Your task to perform on an android device: change timer sound Image 0: 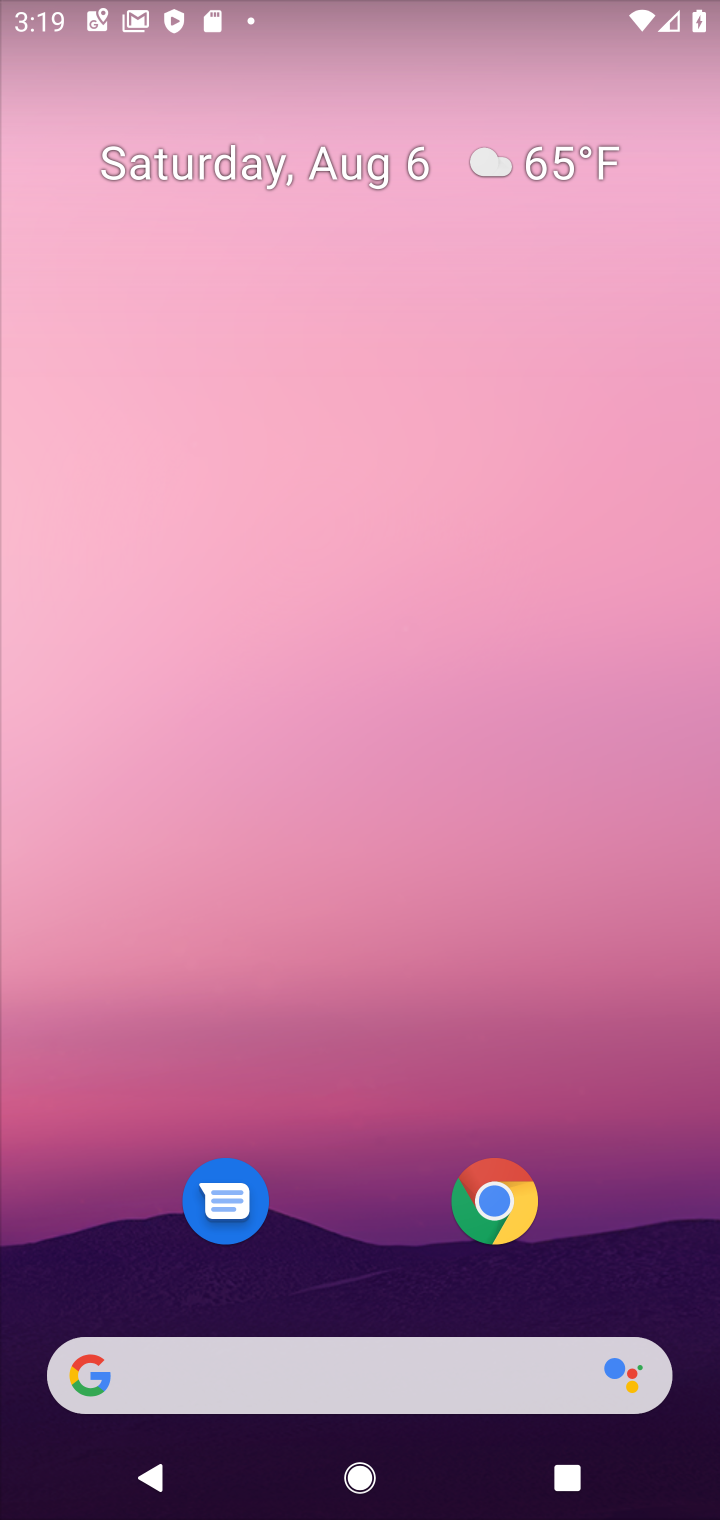
Step 0: press home button
Your task to perform on an android device: change timer sound Image 1: 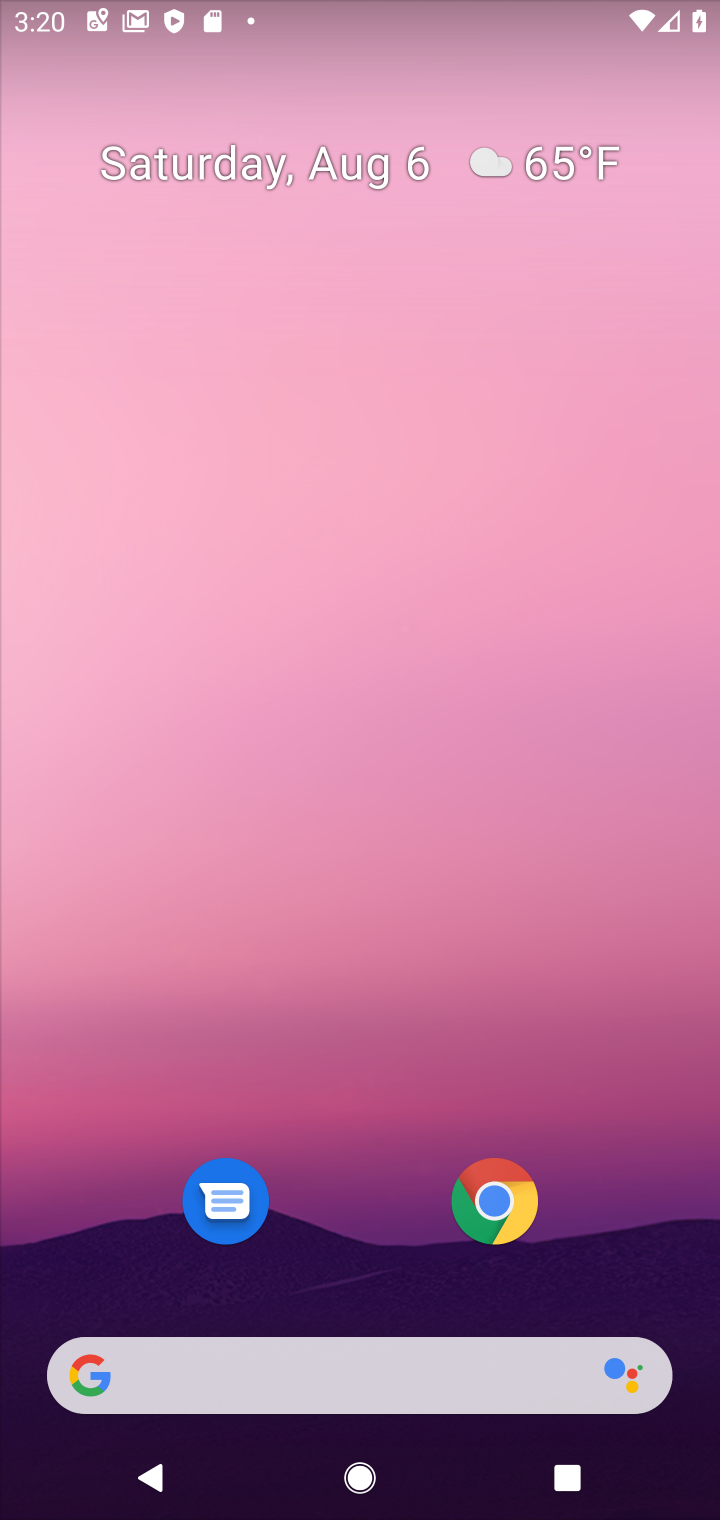
Step 1: drag from (191, 1472) to (347, 269)
Your task to perform on an android device: change timer sound Image 2: 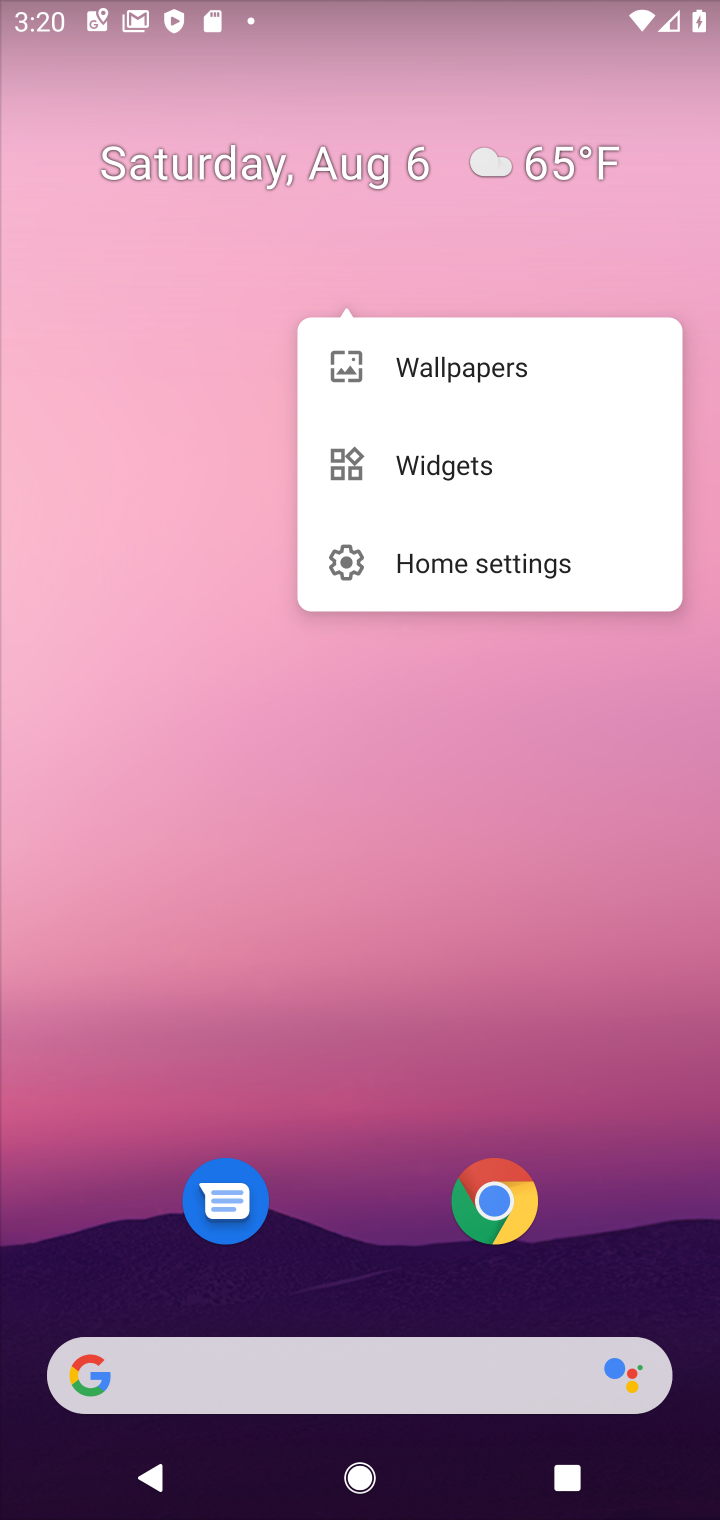
Step 2: drag from (272, 1355) to (272, 674)
Your task to perform on an android device: change timer sound Image 3: 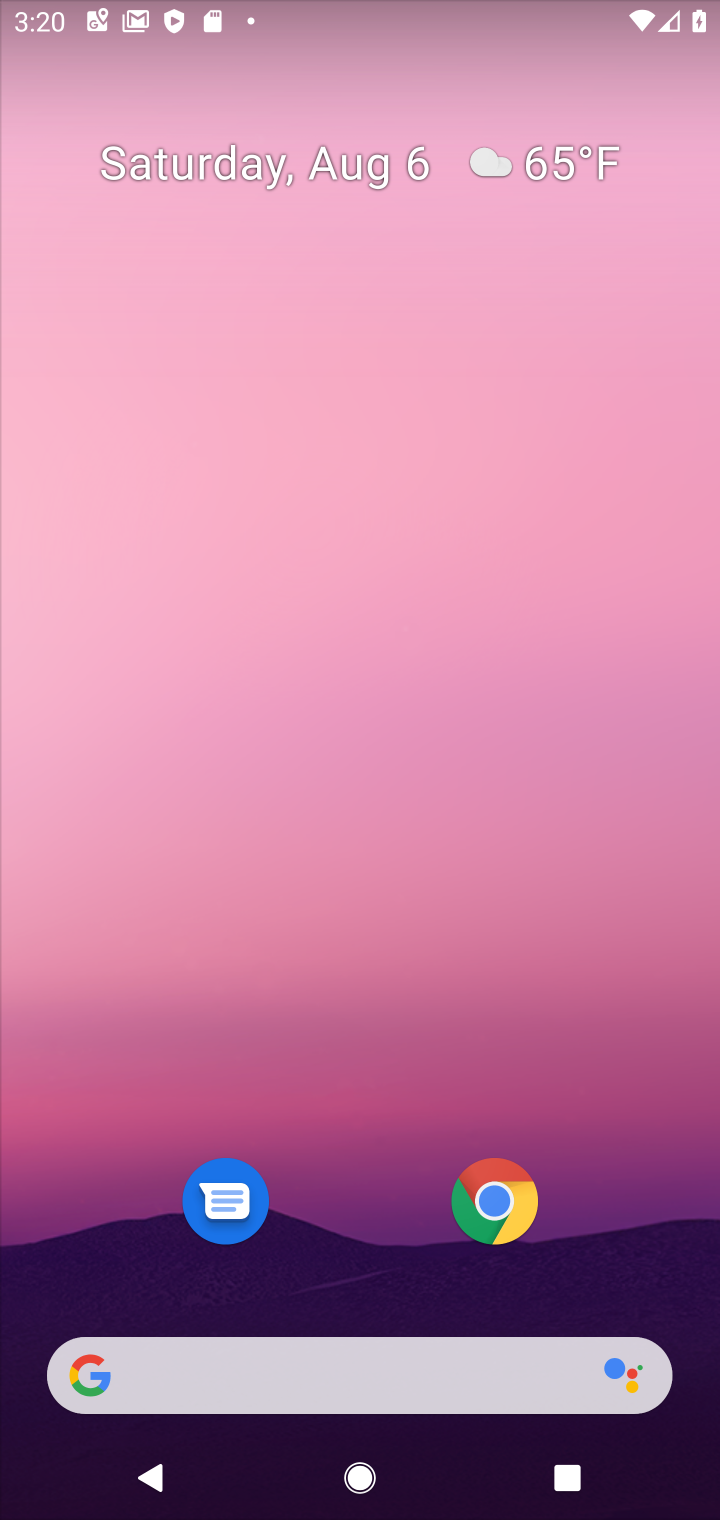
Step 3: drag from (271, 1474) to (343, 236)
Your task to perform on an android device: change timer sound Image 4: 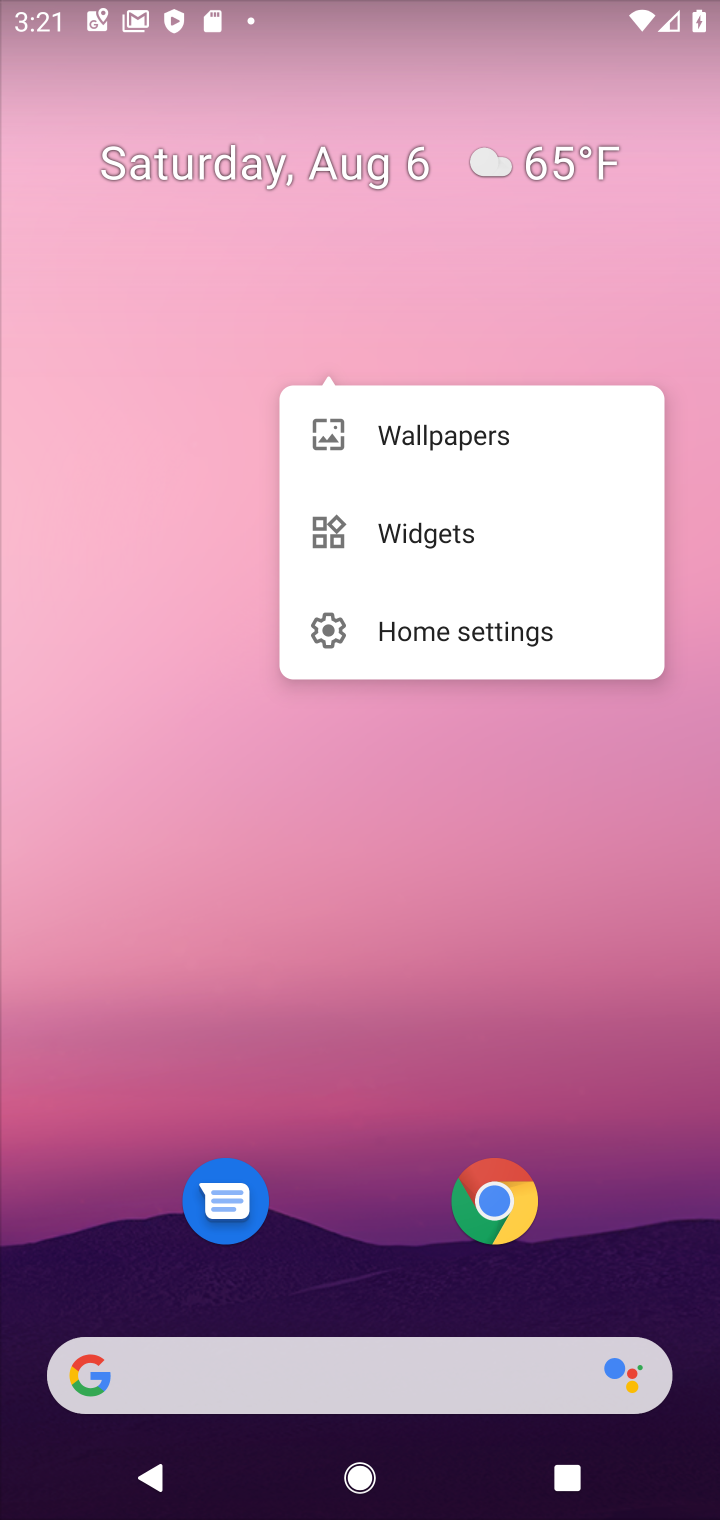
Step 4: drag from (533, 1504) to (388, 732)
Your task to perform on an android device: change timer sound Image 5: 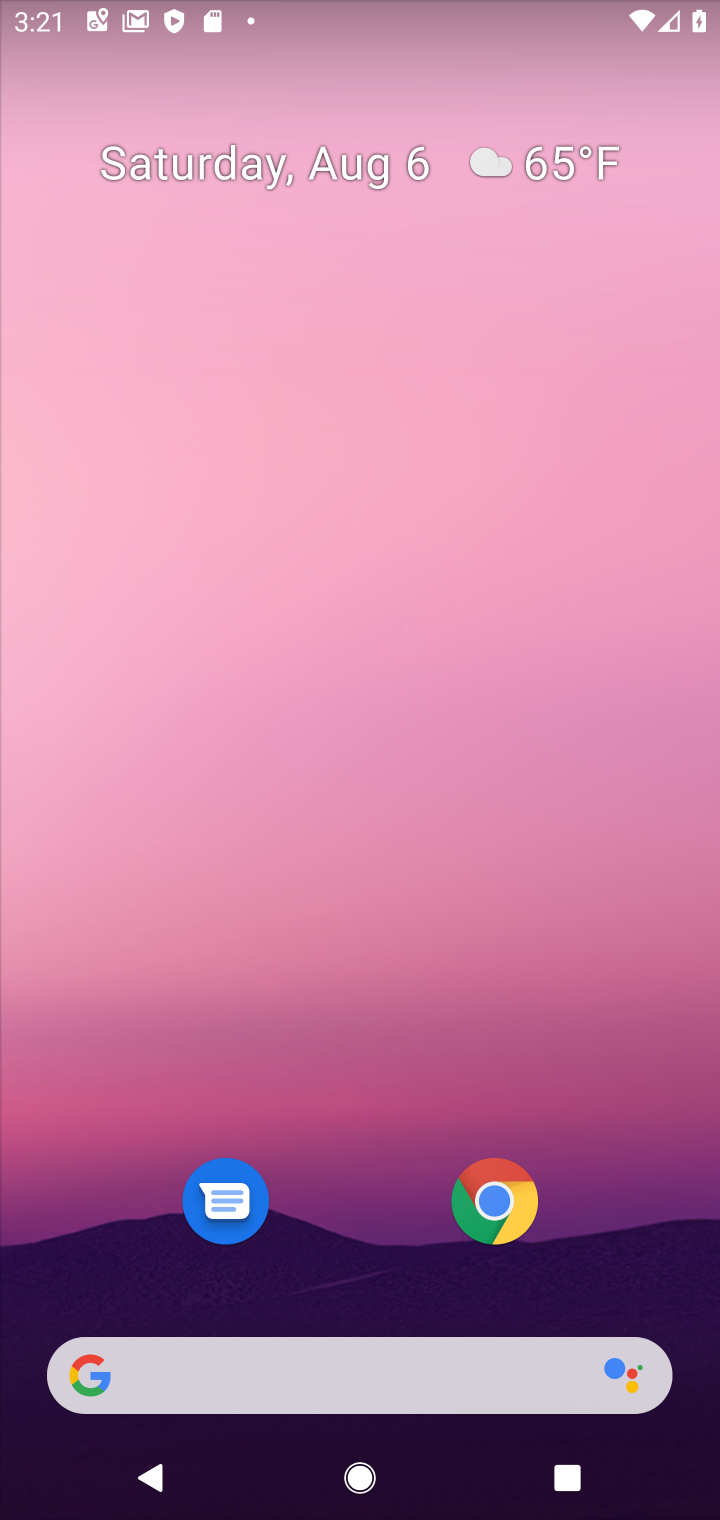
Step 5: drag from (247, 1002) to (509, 182)
Your task to perform on an android device: change timer sound Image 6: 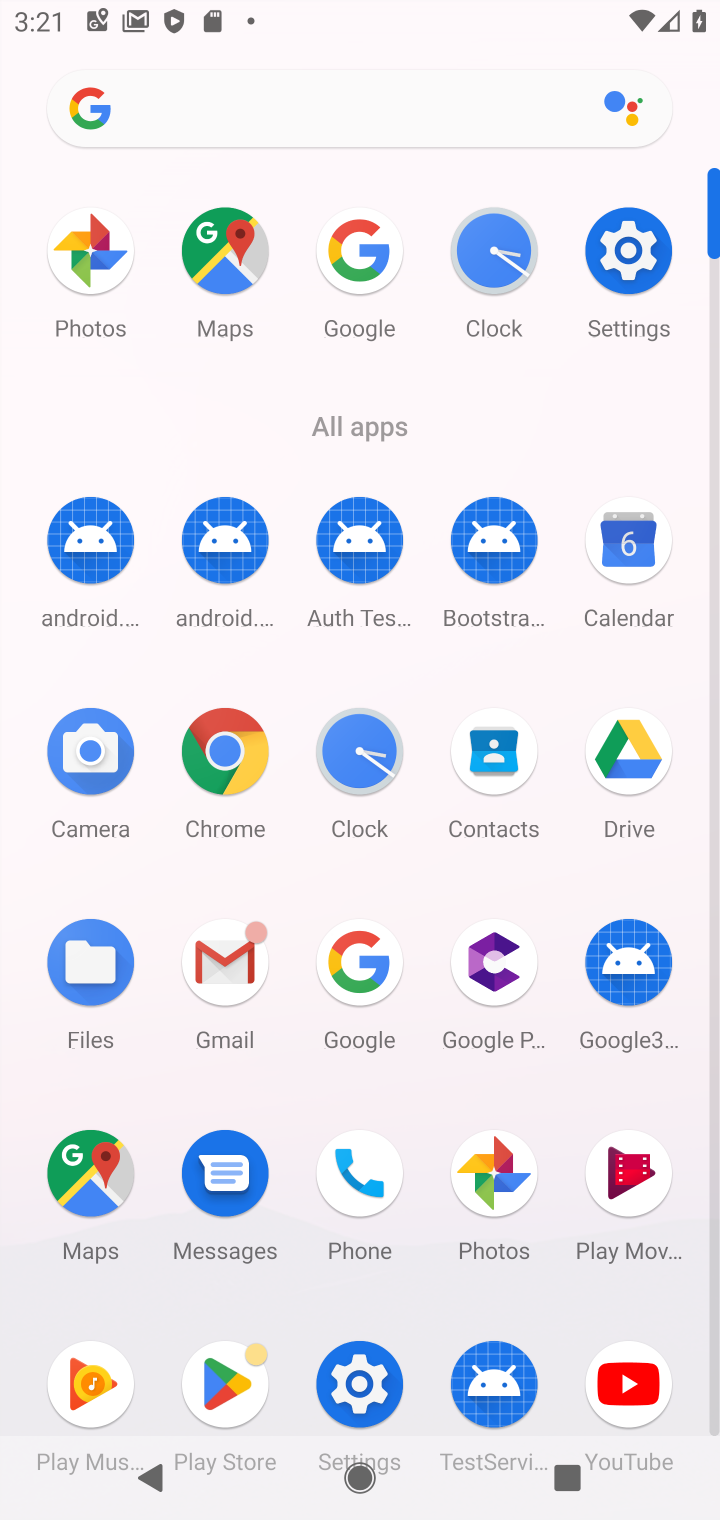
Step 6: click (349, 750)
Your task to perform on an android device: change timer sound Image 7: 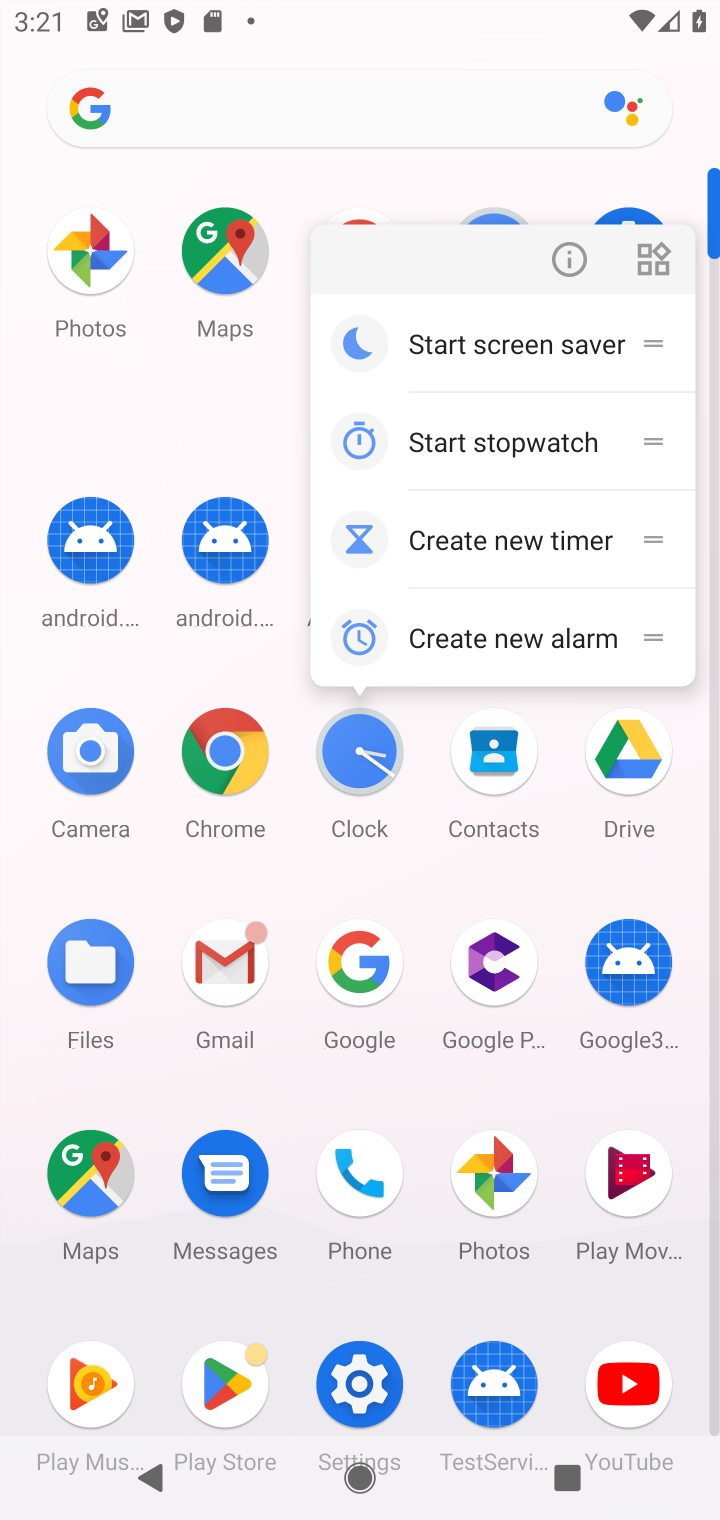
Step 7: click (349, 750)
Your task to perform on an android device: change timer sound Image 8: 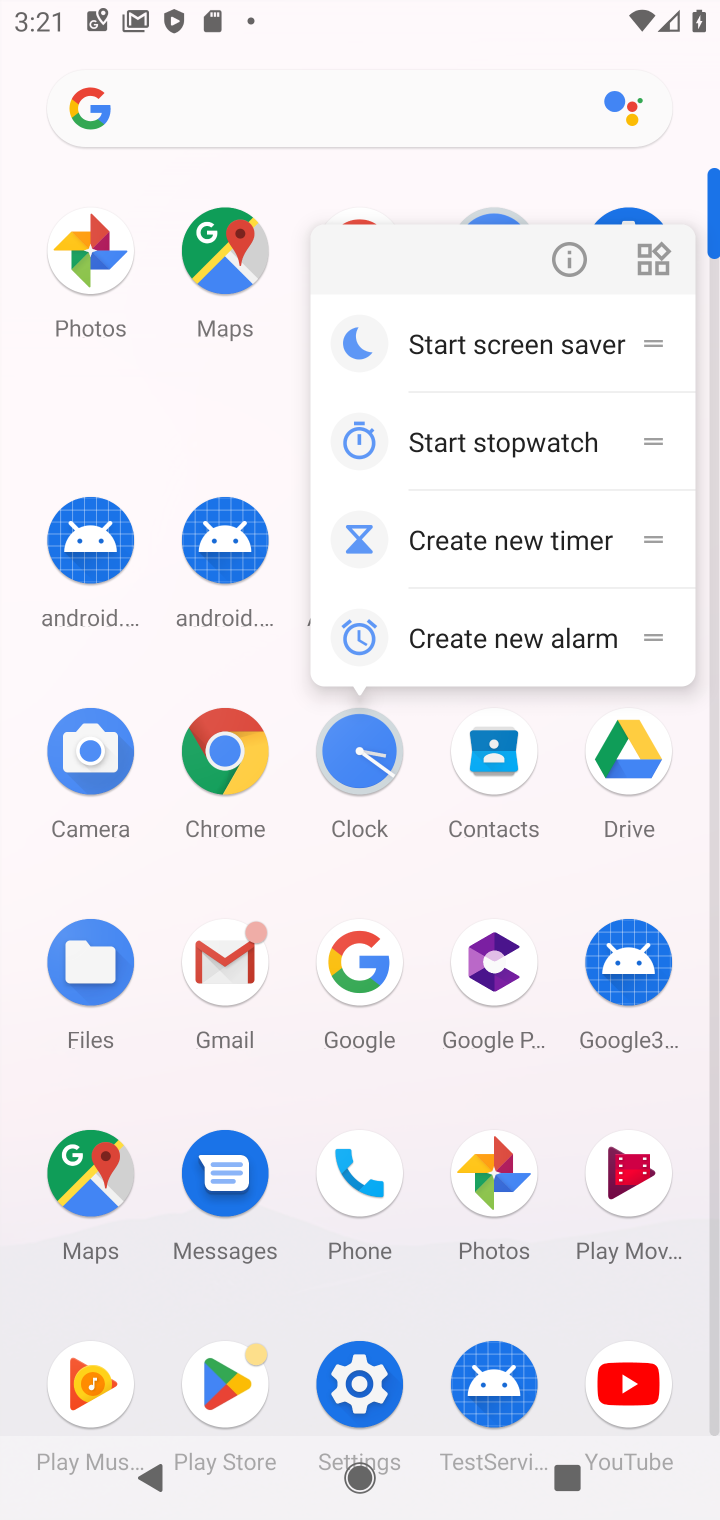
Step 8: click (349, 750)
Your task to perform on an android device: change timer sound Image 9: 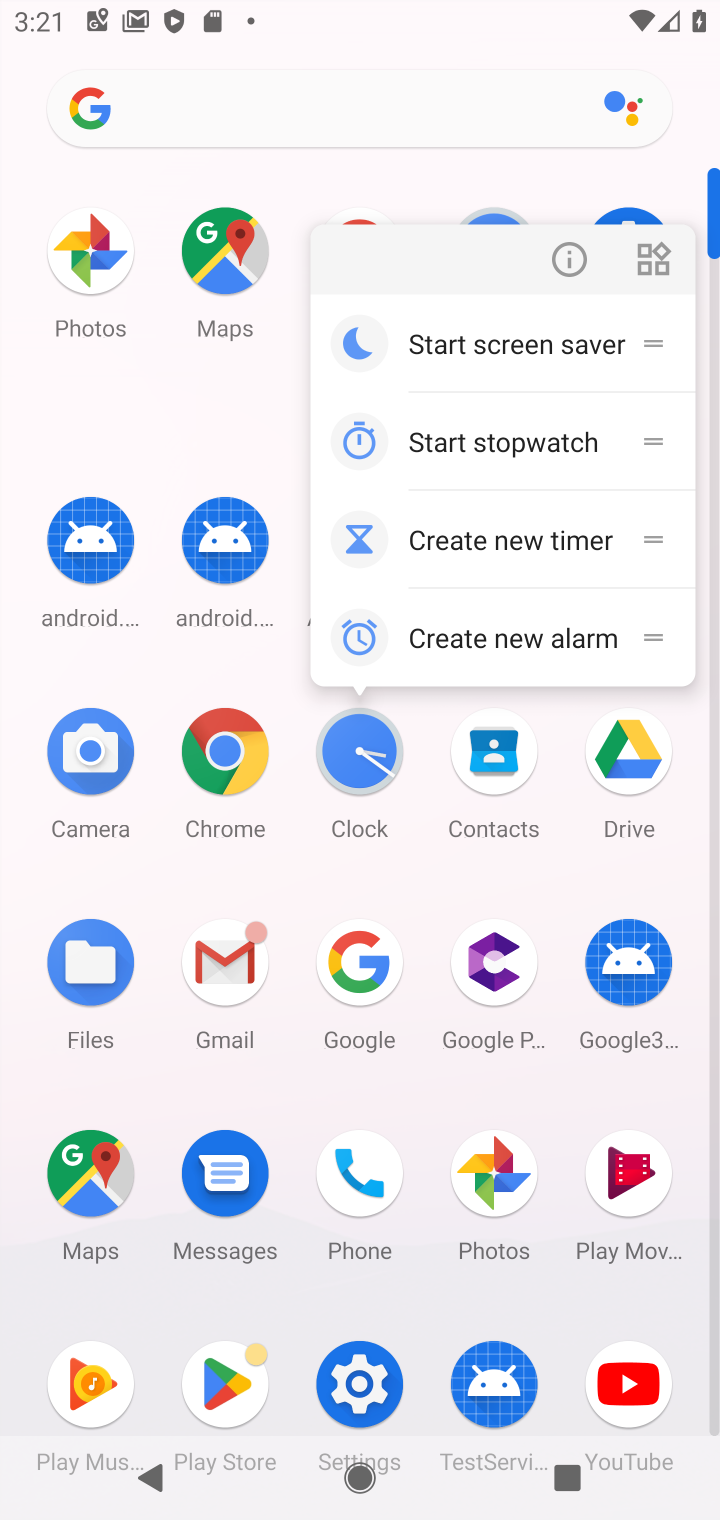
Step 9: click (349, 750)
Your task to perform on an android device: change timer sound Image 10: 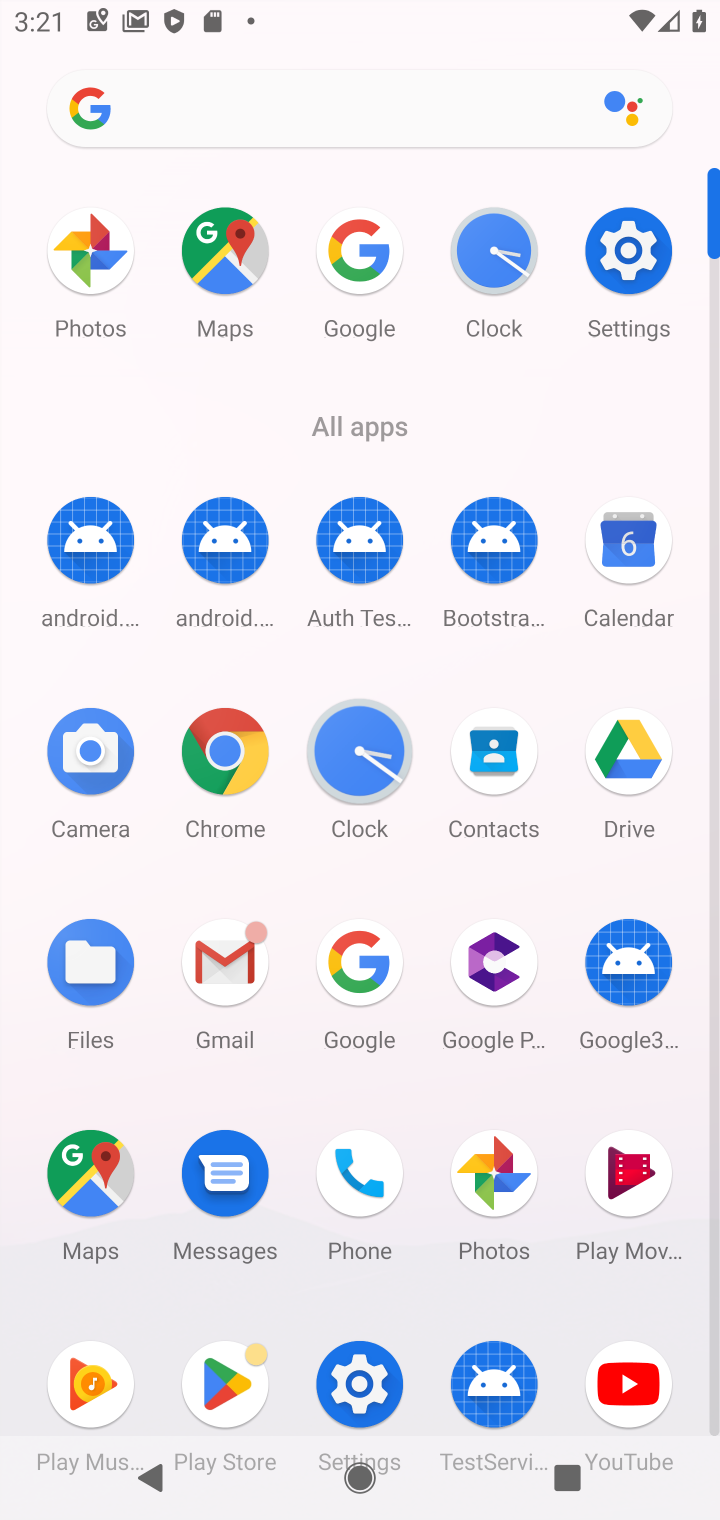
Step 10: click (349, 750)
Your task to perform on an android device: change timer sound Image 11: 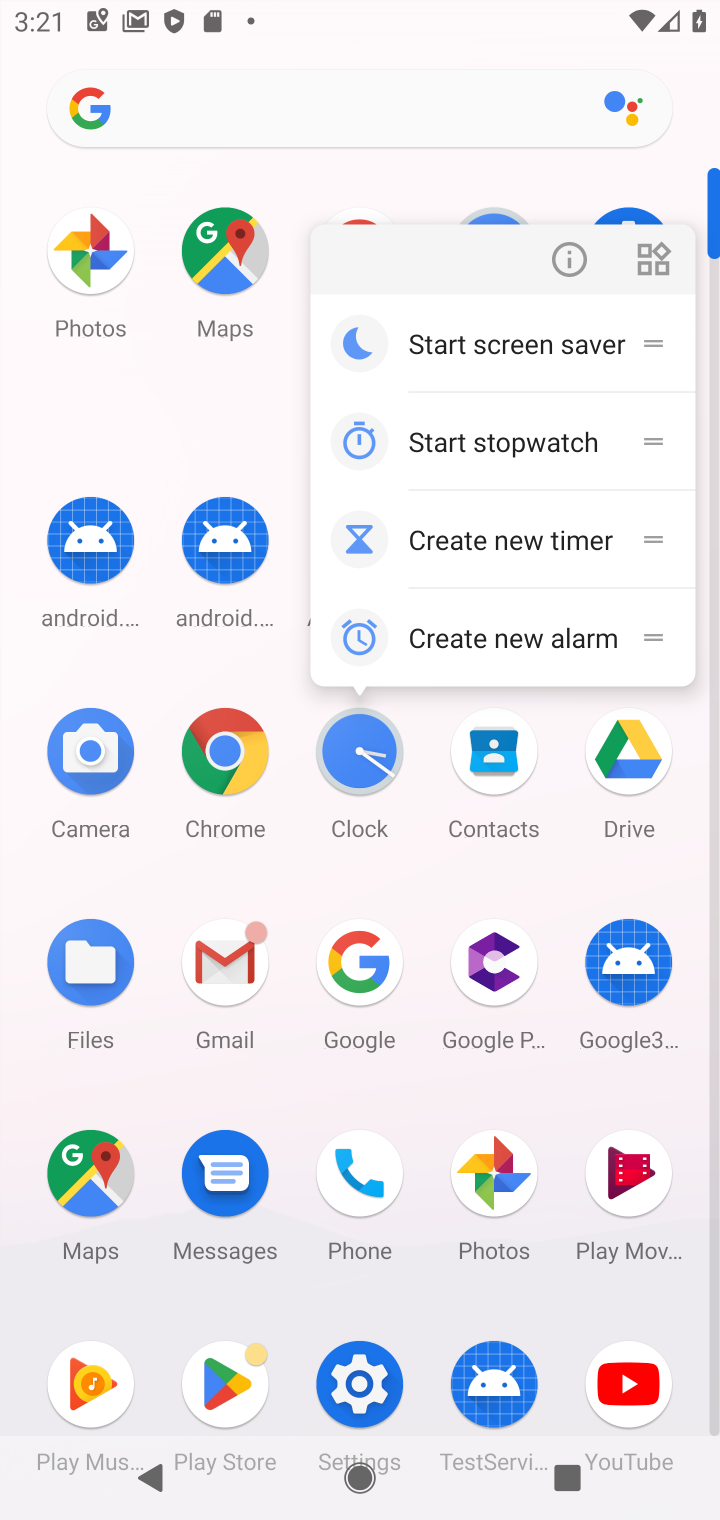
Step 11: click (367, 802)
Your task to perform on an android device: change timer sound Image 12: 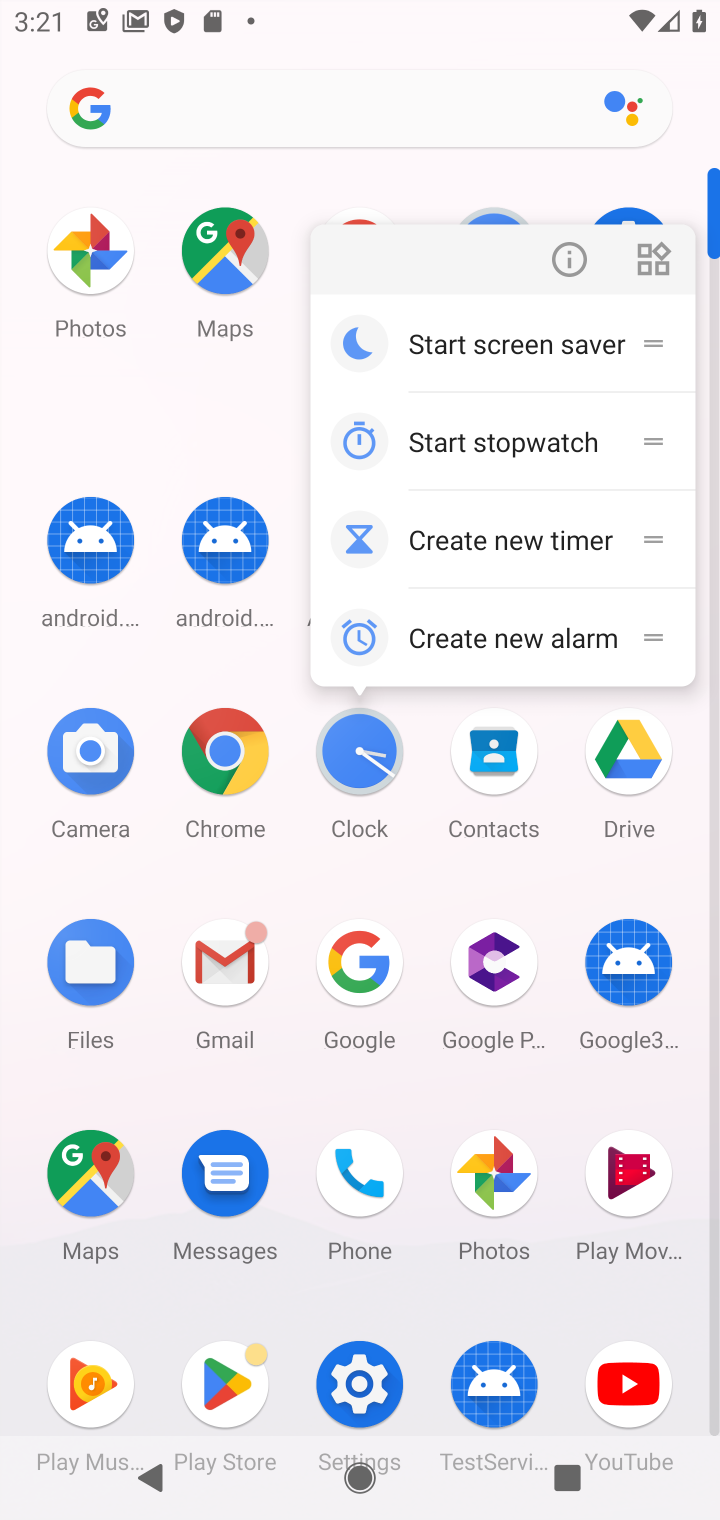
Step 12: click (367, 802)
Your task to perform on an android device: change timer sound Image 13: 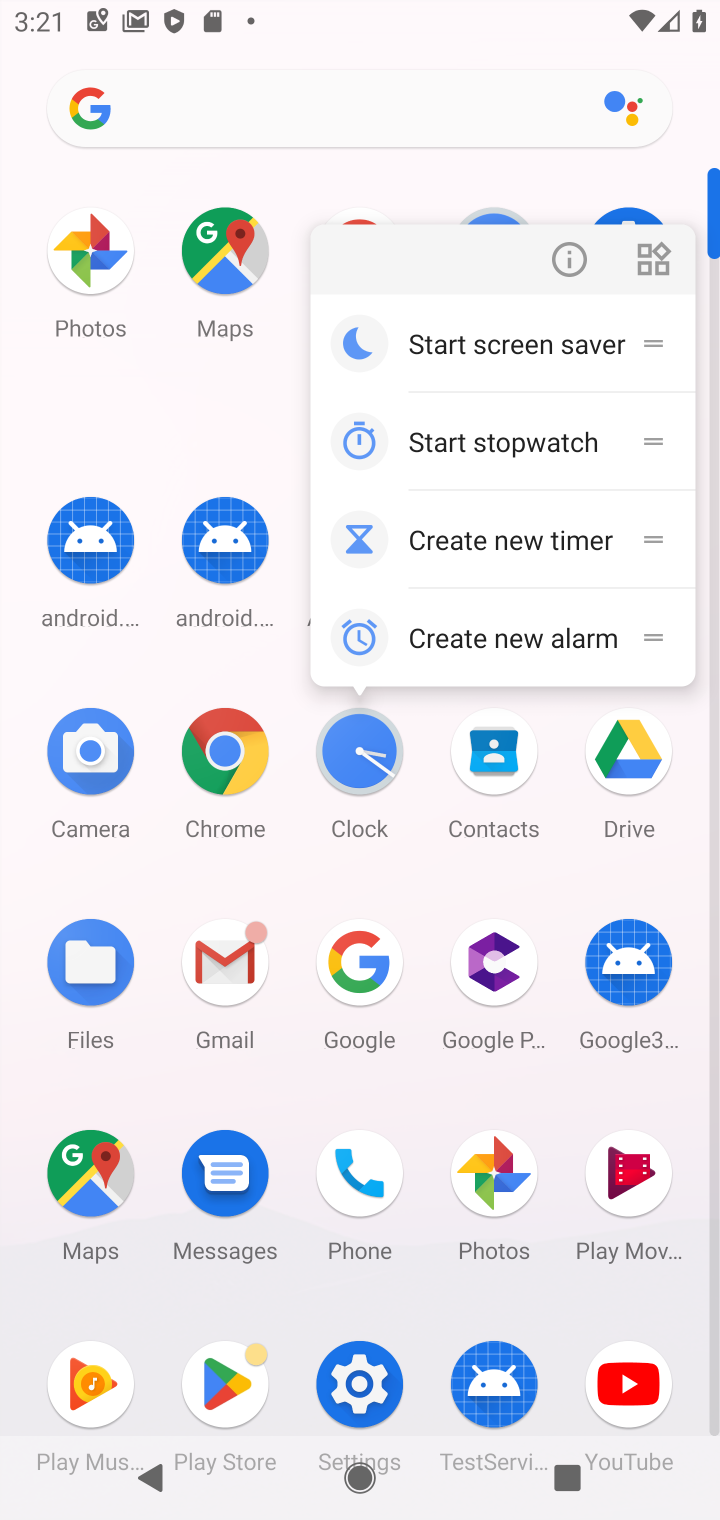
Step 13: click (367, 802)
Your task to perform on an android device: change timer sound Image 14: 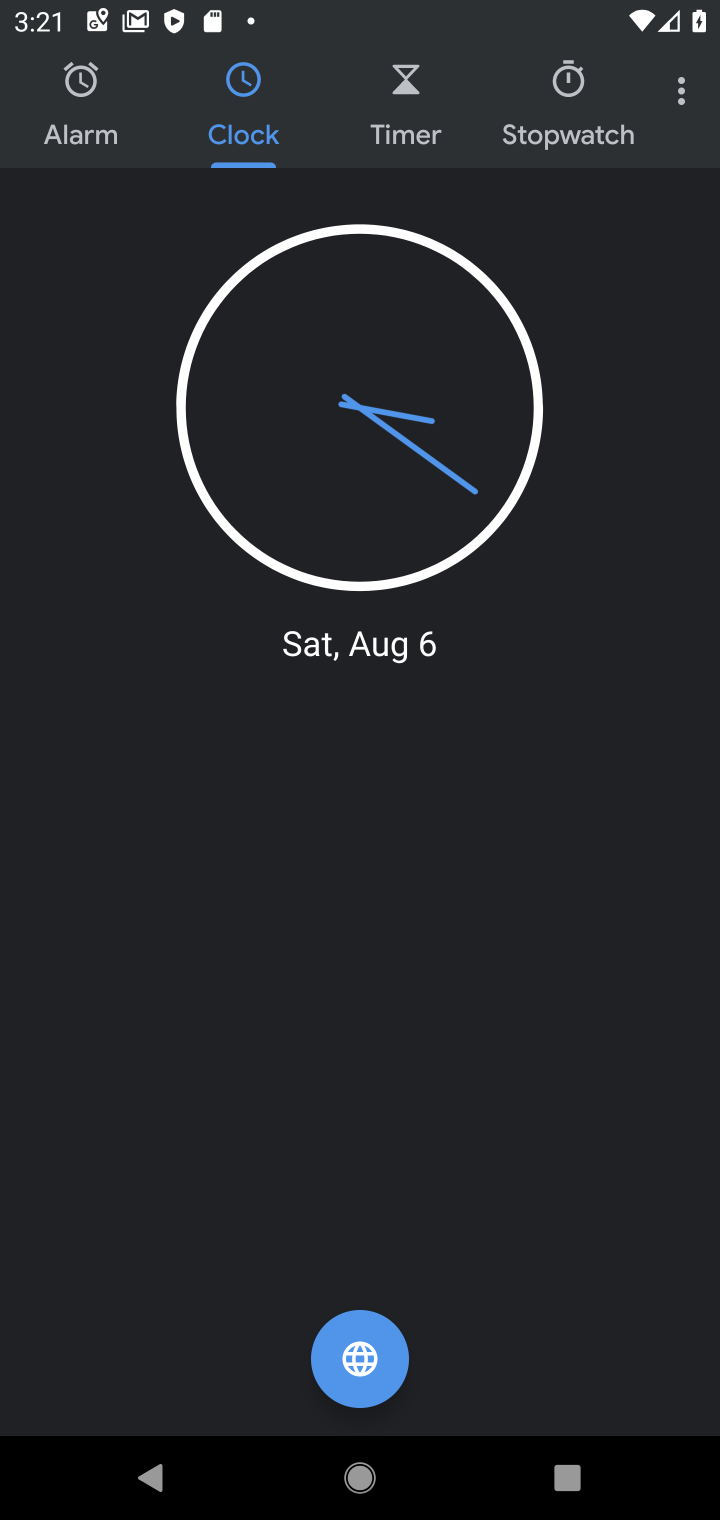
Step 14: click (689, 88)
Your task to perform on an android device: change timer sound Image 15: 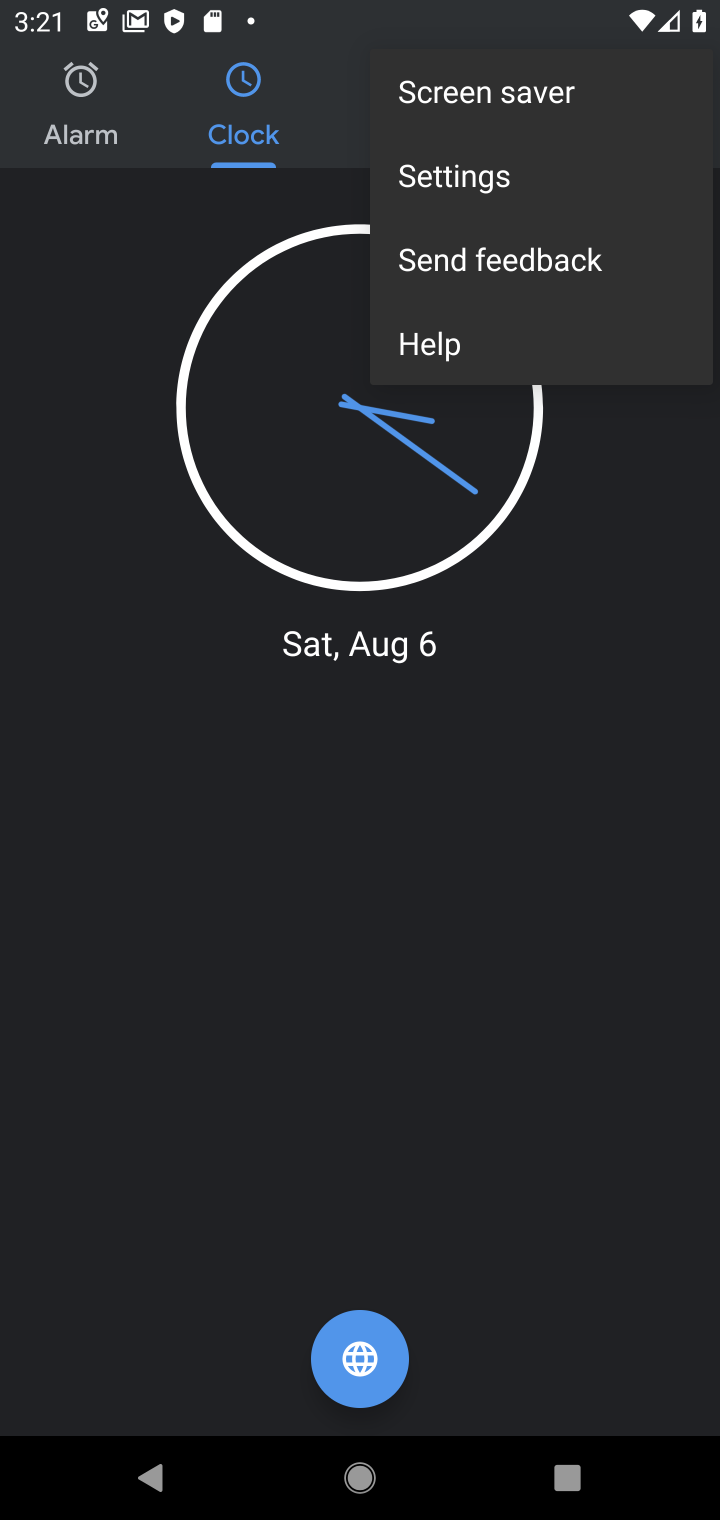
Step 15: click (530, 179)
Your task to perform on an android device: change timer sound Image 16: 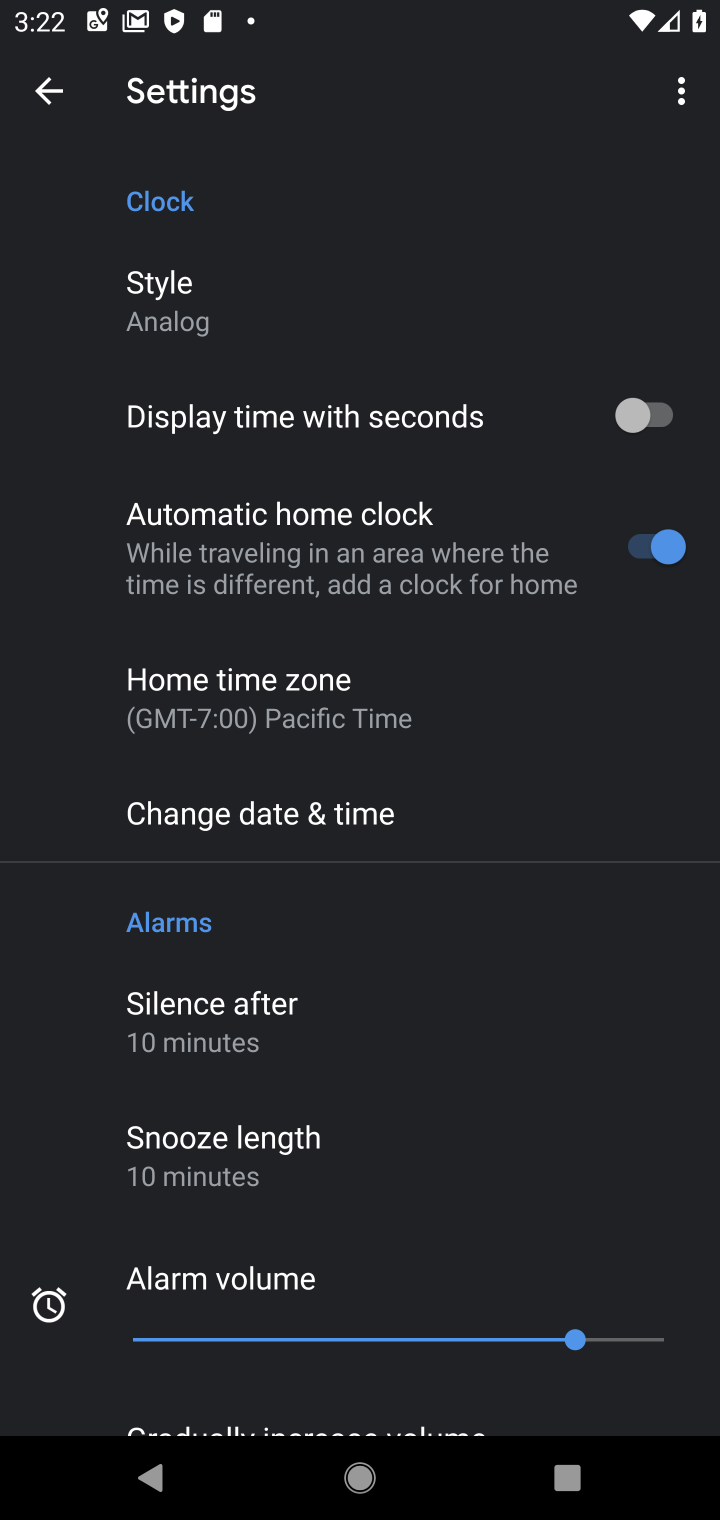
Step 16: drag from (401, 1227) to (373, 96)
Your task to perform on an android device: change timer sound Image 17: 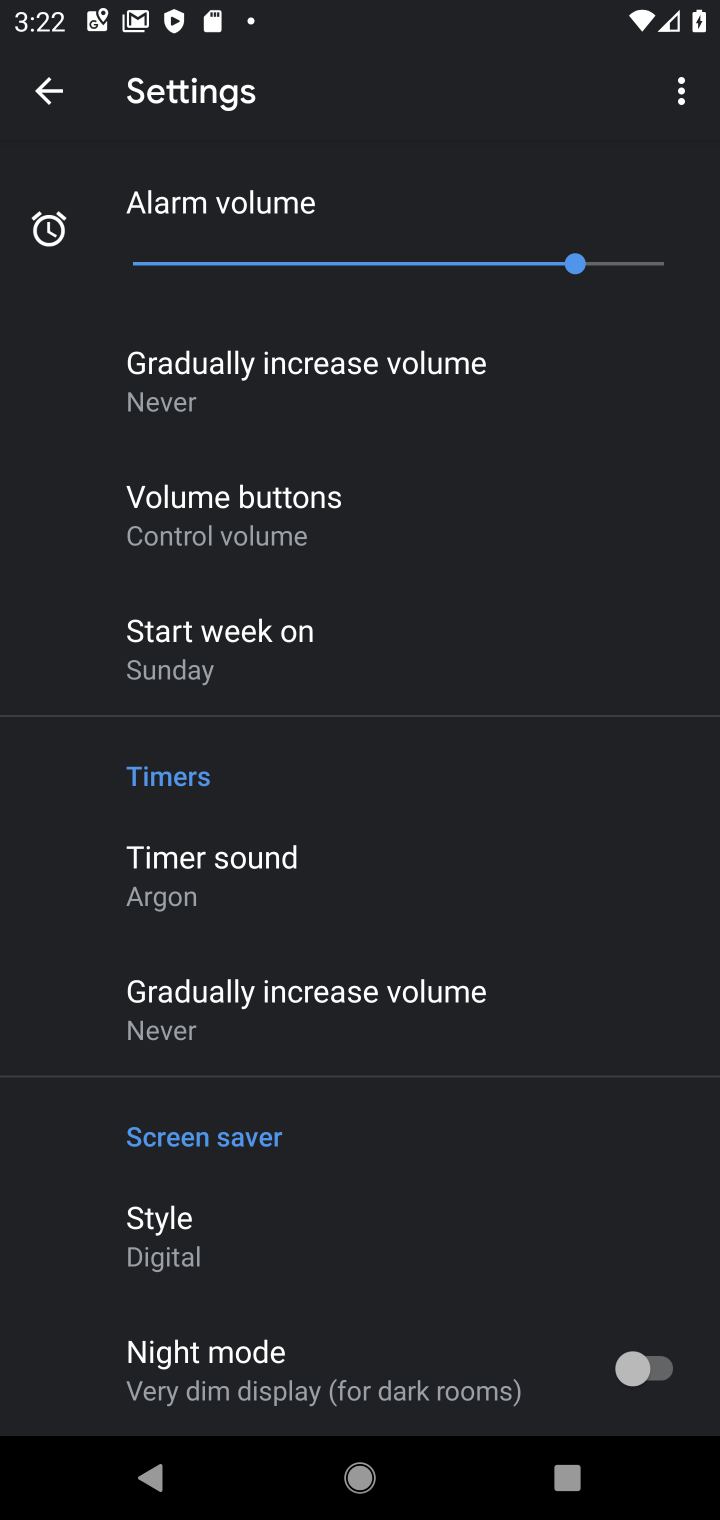
Step 17: click (289, 877)
Your task to perform on an android device: change timer sound Image 18: 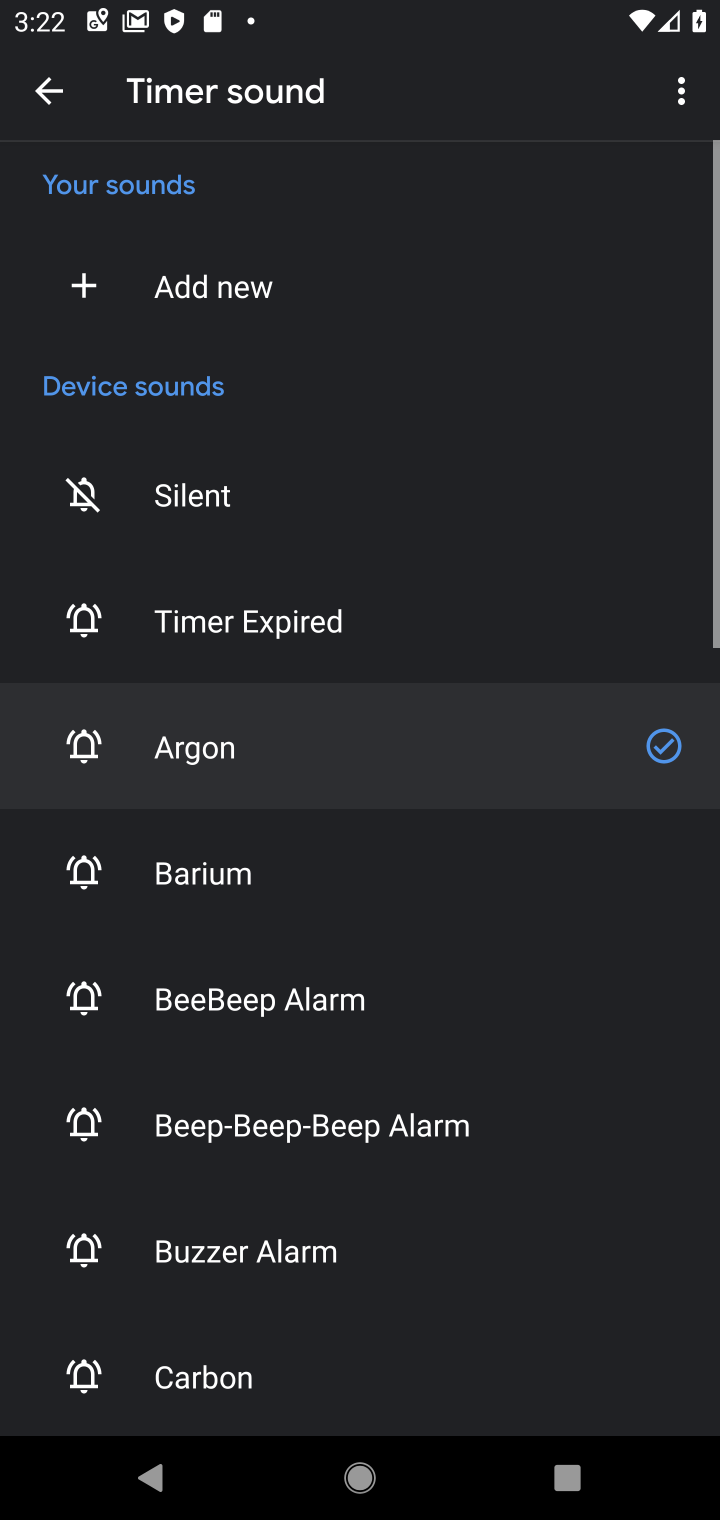
Step 18: click (195, 1366)
Your task to perform on an android device: change timer sound Image 19: 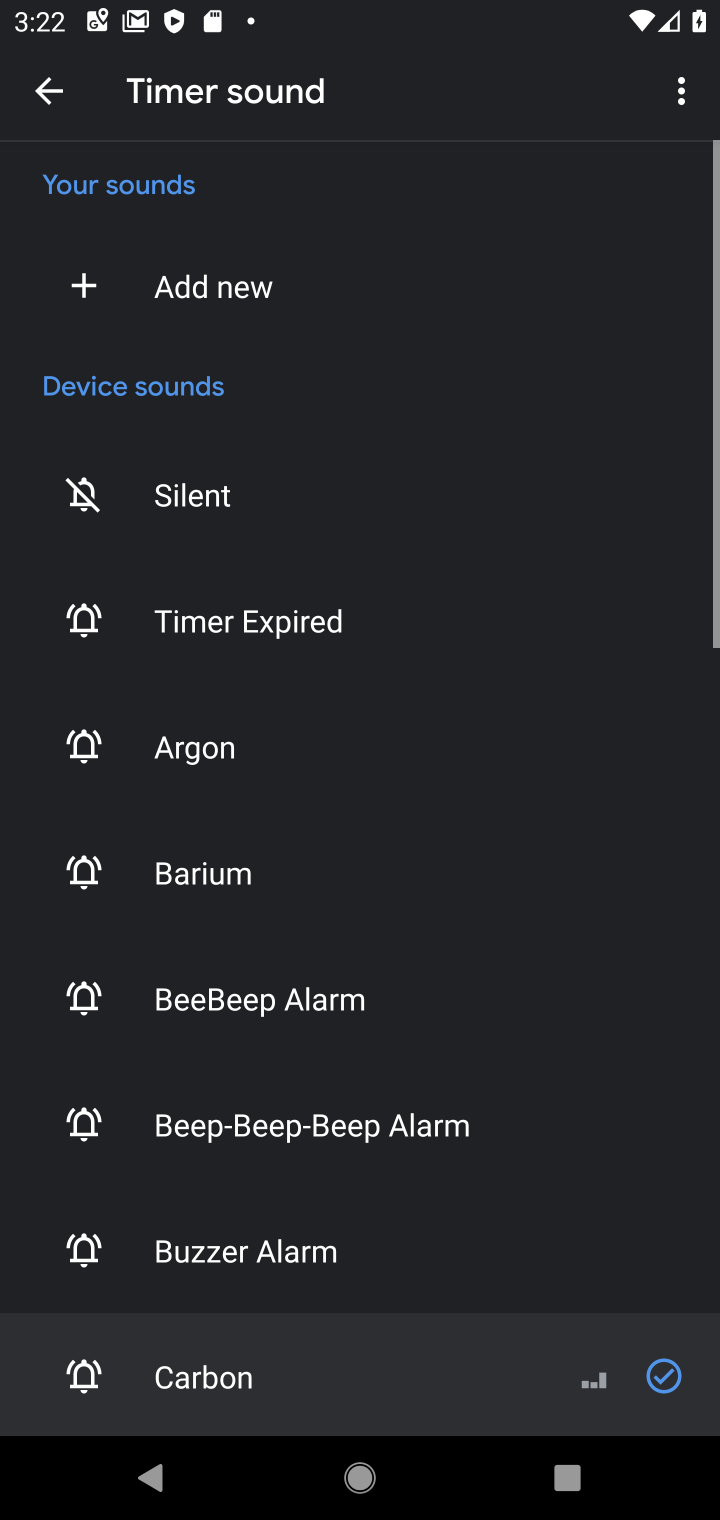
Step 19: task complete